Your task to perform on an android device: add a label to a message in the gmail app Image 0: 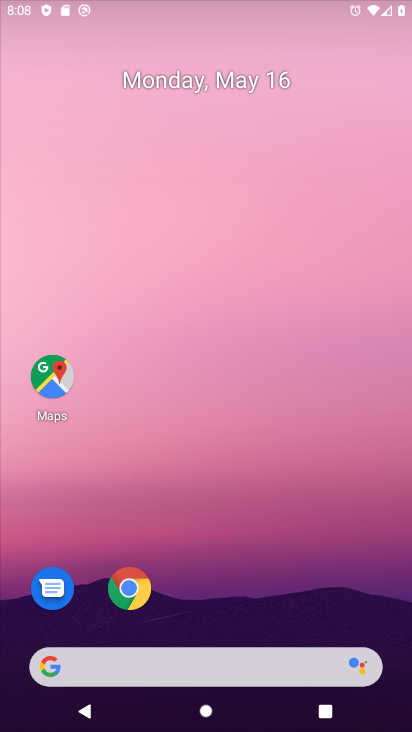
Step 0: drag from (295, 672) to (169, 176)
Your task to perform on an android device: add a label to a message in the gmail app Image 1: 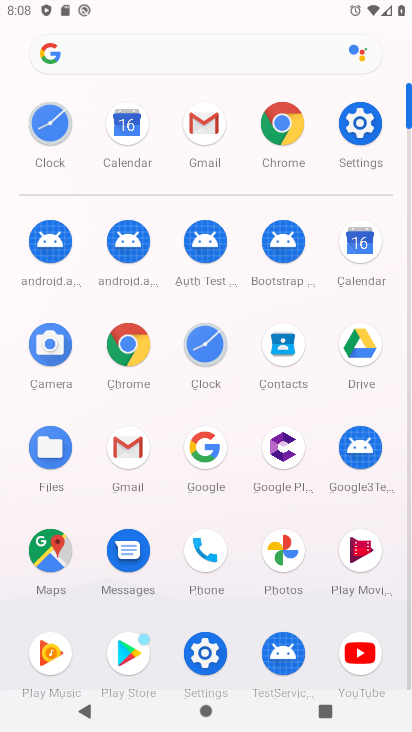
Step 1: click (131, 443)
Your task to perform on an android device: add a label to a message in the gmail app Image 2: 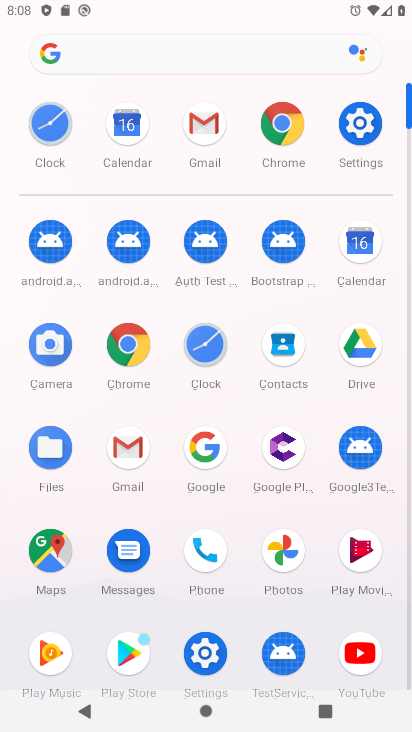
Step 2: click (137, 437)
Your task to perform on an android device: add a label to a message in the gmail app Image 3: 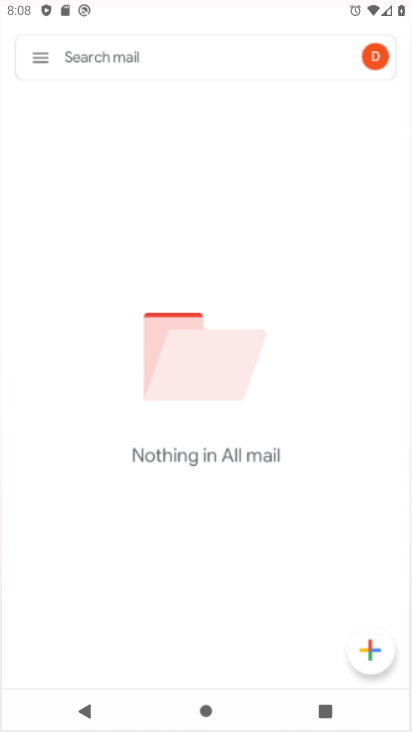
Step 3: click (141, 433)
Your task to perform on an android device: add a label to a message in the gmail app Image 4: 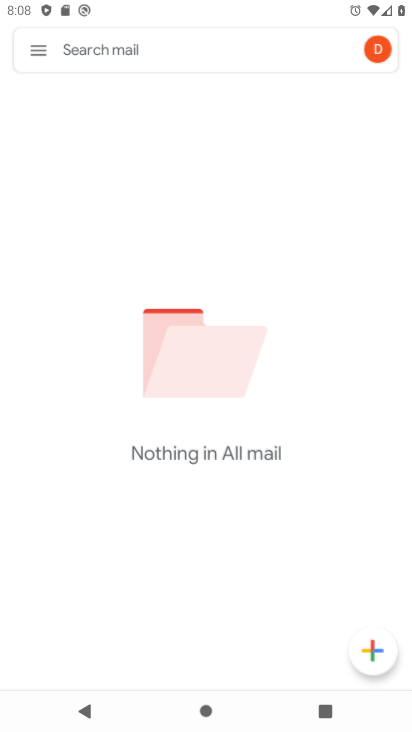
Step 4: click (142, 432)
Your task to perform on an android device: add a label to a message in the gmail app Image 5: 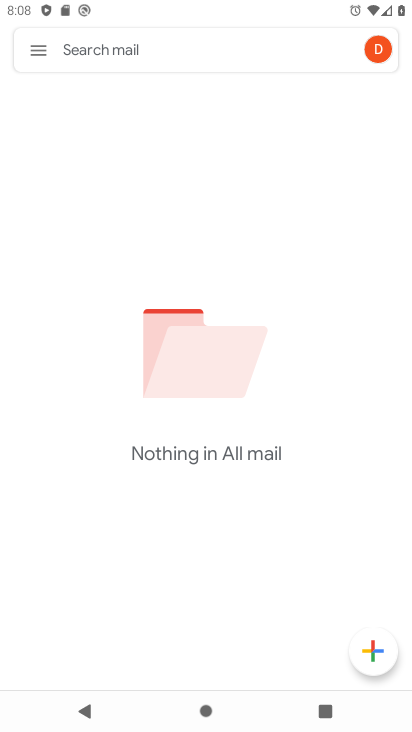
Step 5: click (144, 430)
Your task to perform on an android device: add a label to a message in the gmail app Image 6: 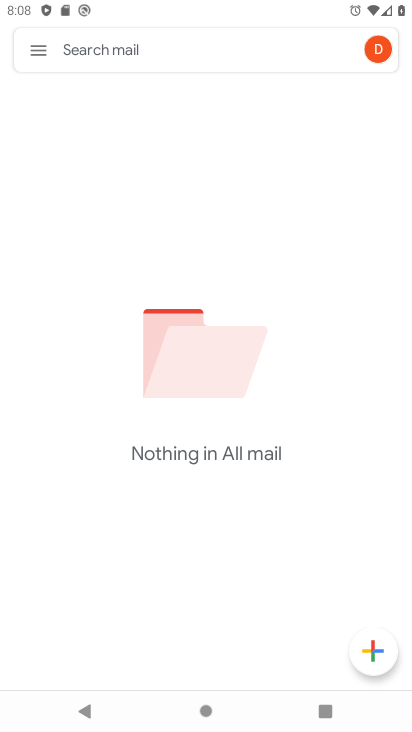
Step 6: click (32, 39)
Your task to perform on an android device: add a label to a message in the gmail app Image 7: 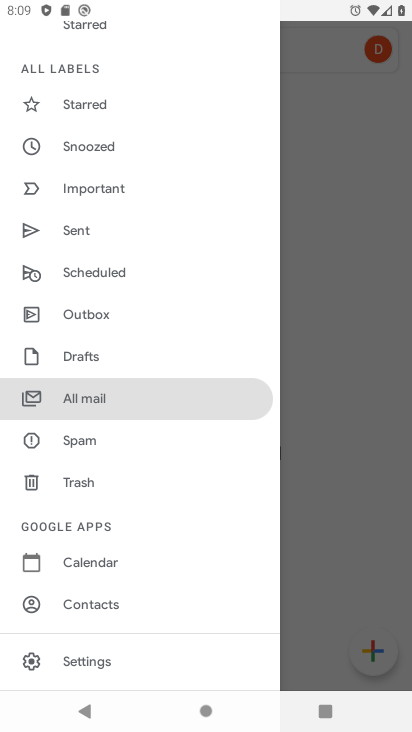
Step 7: click (113, 404)
Your task to perform on an android device: add a label to a message in the gmail app Image 8: 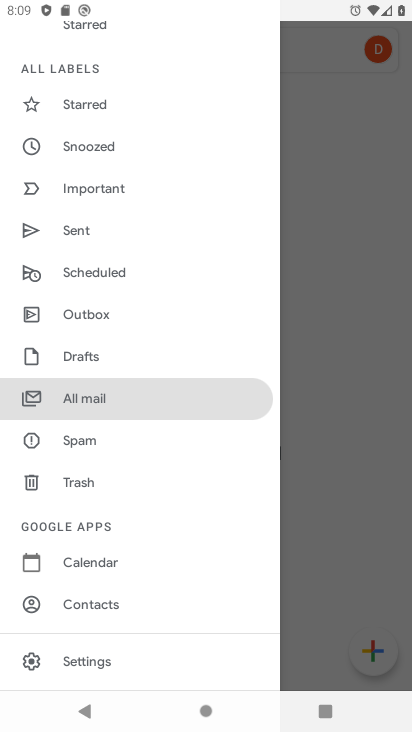
Step 8: click (114, 405)
Your task to perform on an android device: add a label to a message in the gmail app Image 9: 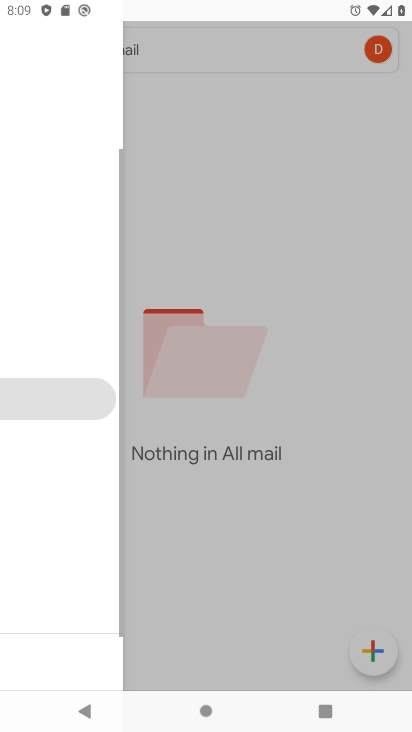
Step 9: click (114, 405)
Your task to perform on an android device: add a label to a message in the gmail app Image 10: 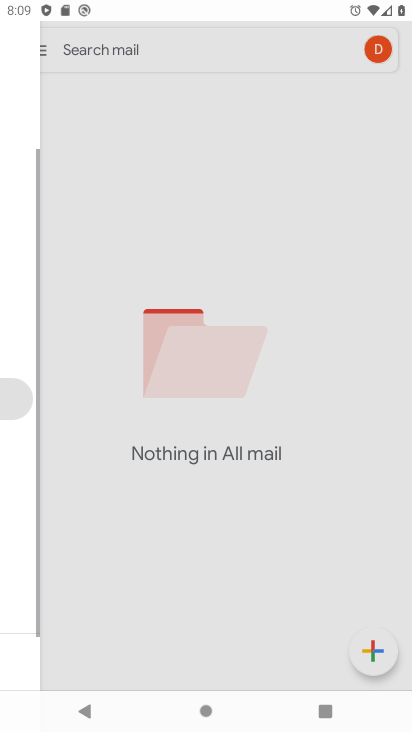
Step 10: click (115, 406)
Your task to perform on an android device: add a label to a message in the gmail app Image 11: 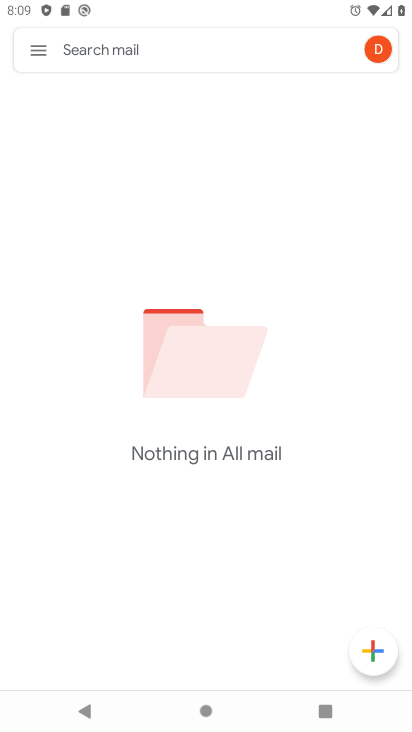
Step 11: task complete